Your task to perform on an android device: turn pop-ups off in chrome Image 0: 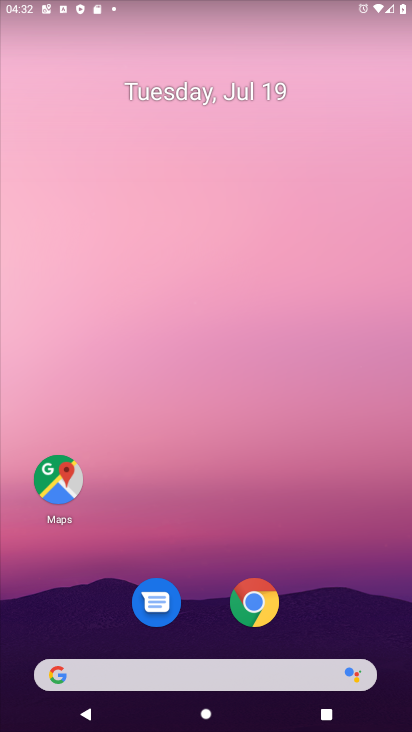
Step 0: click (255, 608)
Your task to perform on an android device: turn pop-ups off in chrome Image 1: 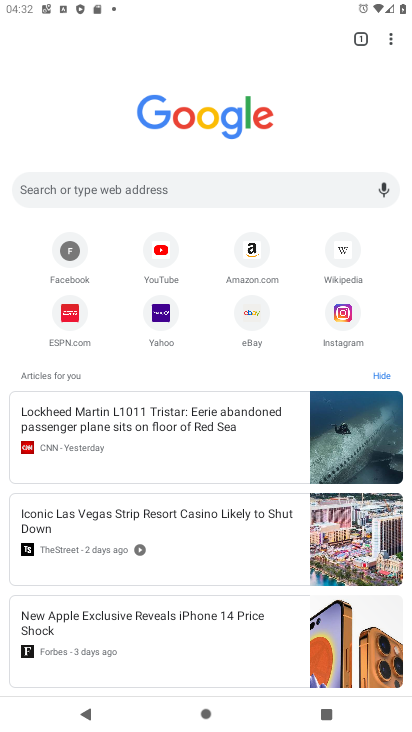
Step 1: click (399, 43)
Your task to perform on an android device: turn pop-ups off in chrome Image 2: 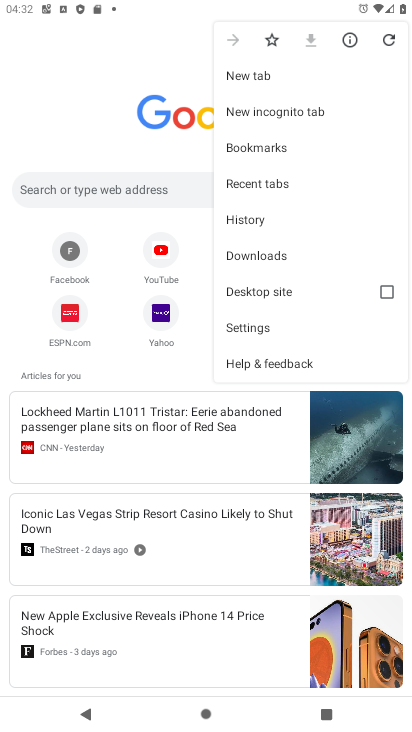
Step 2: click (256, 326)
Your task to perform on an android device: turn pop-ups off in chrome Image 3: 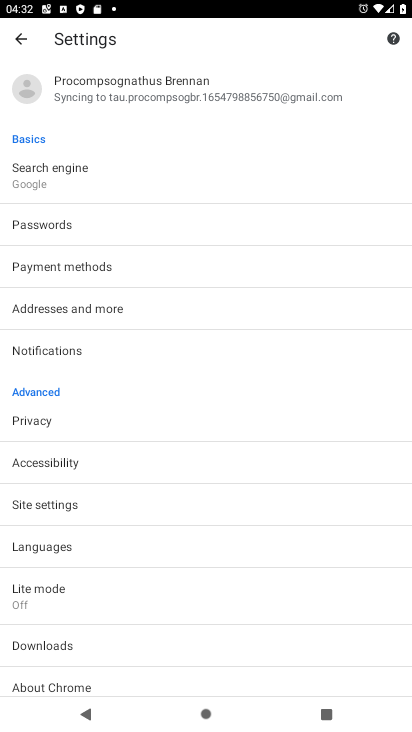
Step 3: click (100, 509)
Your task to perform on an android device: turn pop-ups off in chrome Image 4: 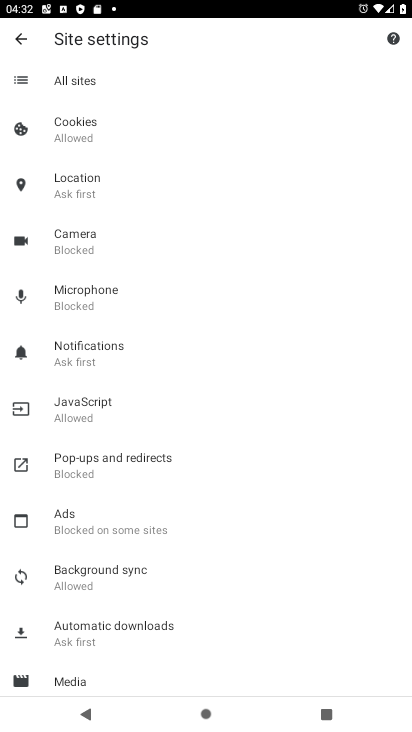
Step 4: click (117, 464)
Your task to perform on an android device: turn pop-ups off in chrome Image 5: 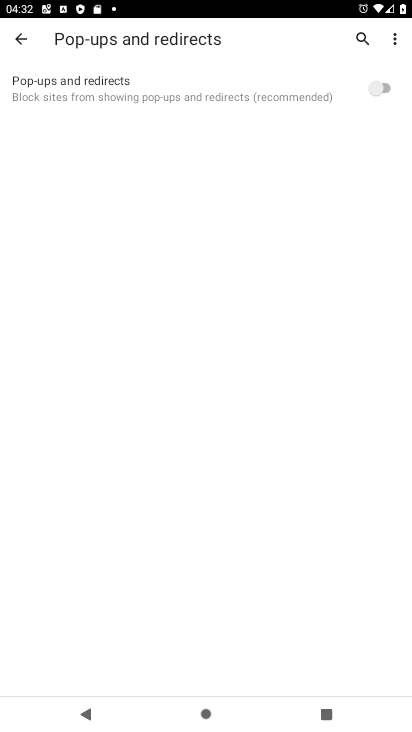
Step 5: press home button
Your task to perform on an android device: turn pop-ups off in chrome Image 6: 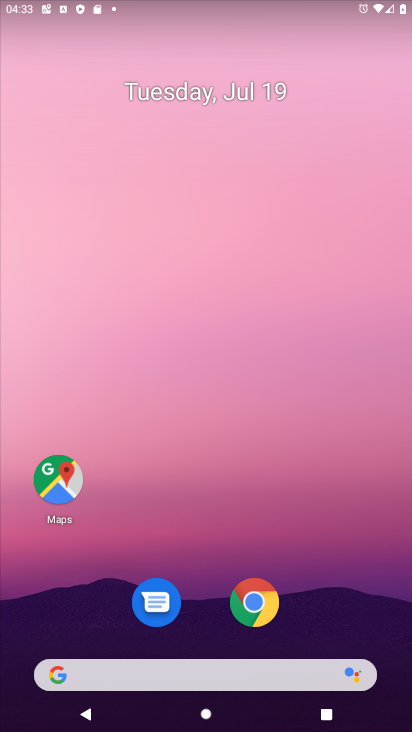
Step 6: click (236, 605)
Your task to perform on an android device: turn pop-ups off in chrome Image 7: 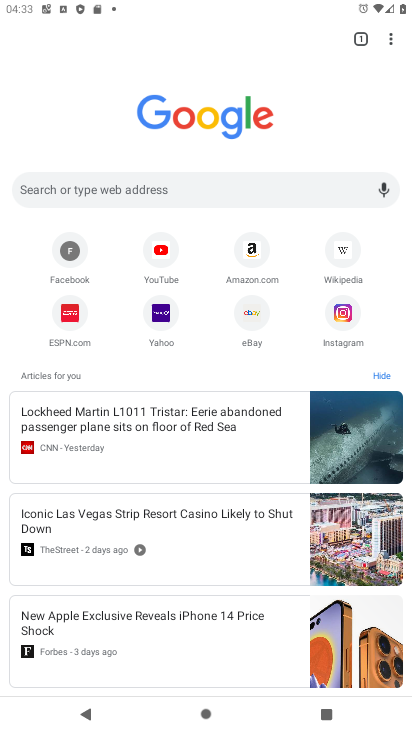
Step 7: click (391, 40)
Your task to perform on an android device: turn pop-ups off in chrome Image 8: 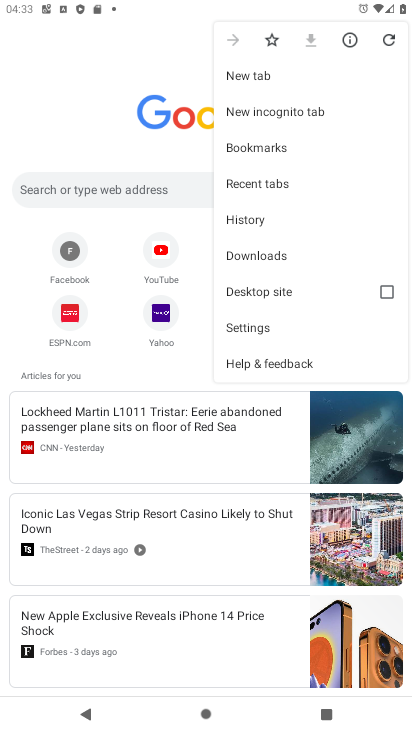
Step 8: click (247, 345)
Your task to perform on an android device: turn pop-ups off in chrome Image 9: 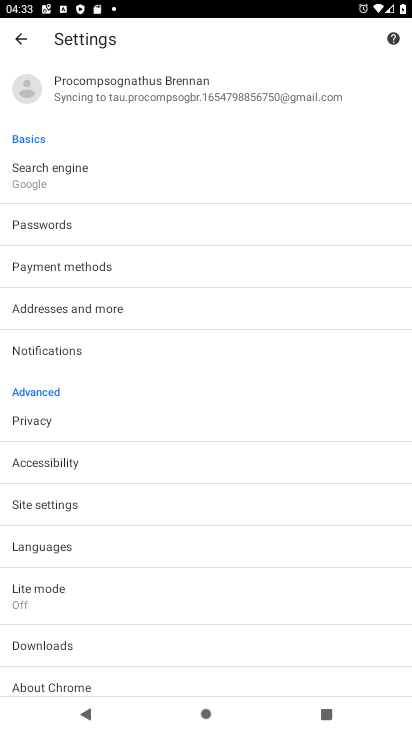
Step 9: drag from (50, 638) to (88, 217)
Your task to perform on an android device: turn pop-ups off in chrome Image 10: 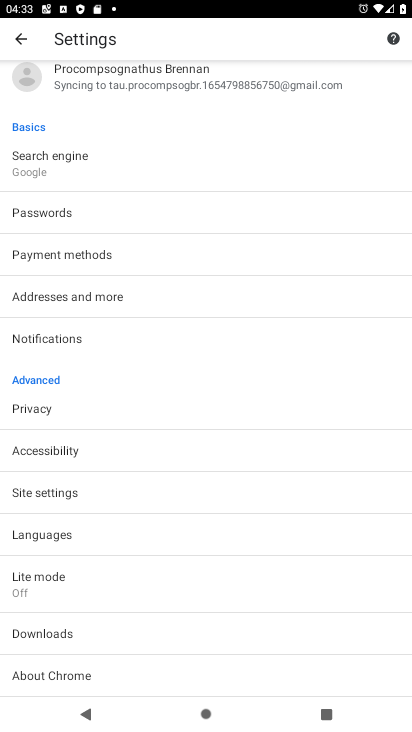
Step 10: drag from (69, 626) to (115, 248)
Your task to perform on an android device: turn pop-ups off in chrome Image 11: 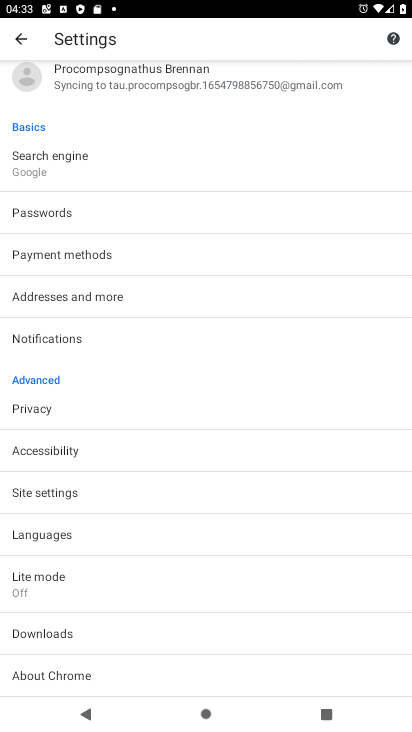
Step 11: click (95, 500)
Your task to perform on an android device: turn pop-ups off in chrome Image 12: 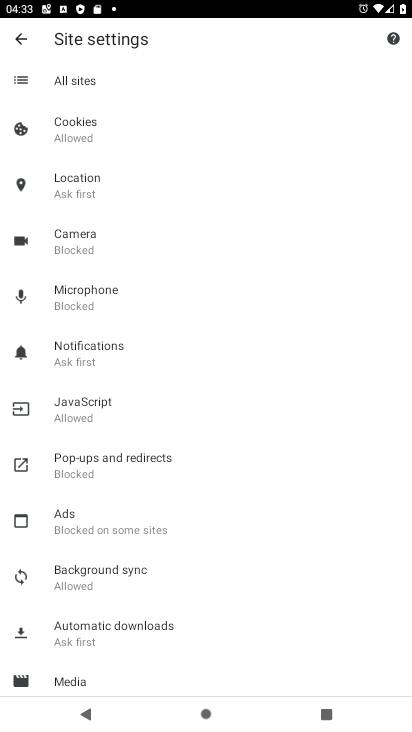
Step 12: click (60, 469)
Your task to perform on an android device: turn pop-ups off in chrome Image 13: 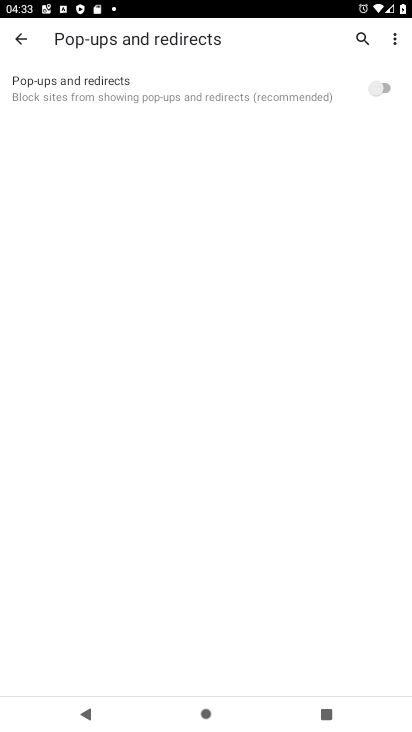
Step 13: task complete